Your task to perform on an android device: create a new album in the google photos Image 0: 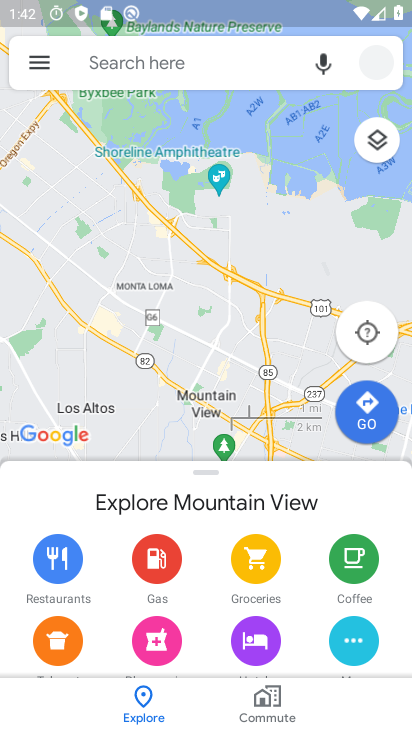
Step 0: press home button
Your task to perform on an android device: create a new album in the google photos Image 1: 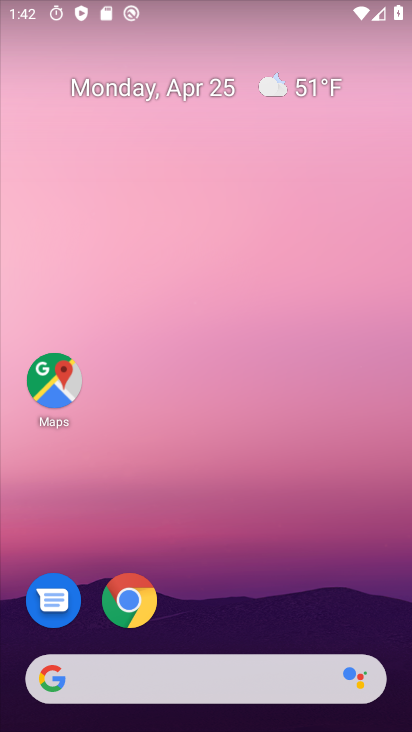
Step 1: drag from (156, 671) to (222, 249)
Your task to perform on an android device: create a new album in the google photos Image 2: 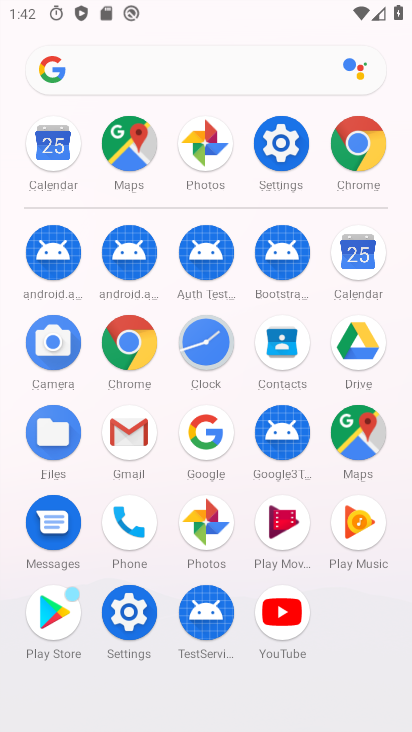
Step 2: click (209, 531)
Your task to perform on an android device: create a new album in the google photos Image 3: 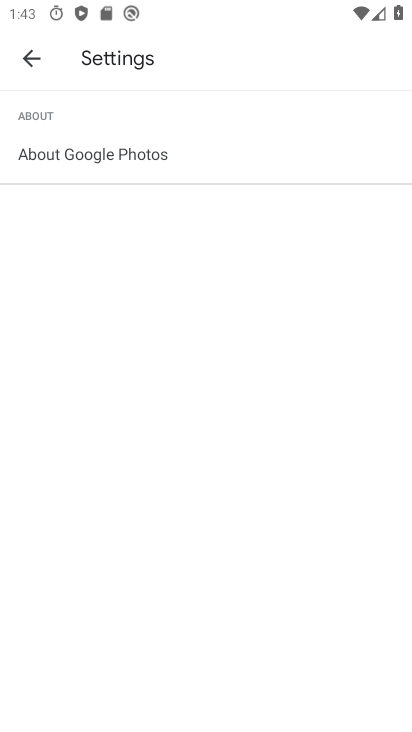
Step 3: click (34, 56)
Your task to perform on an android device: create a new album in the google photos Image 4: 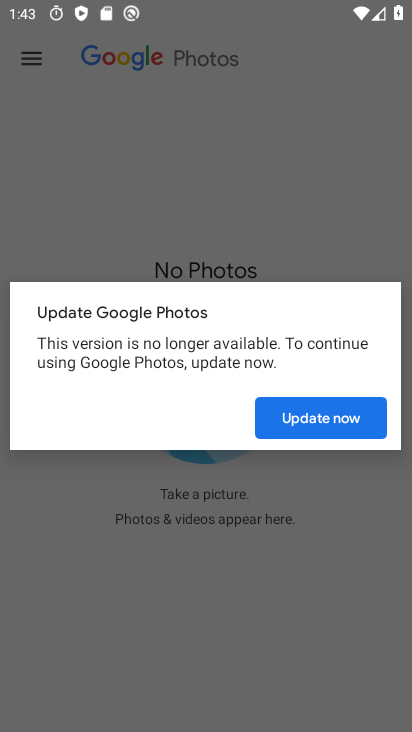
Step 4: click (345, 418)
Your task to perform on an android device: create a new album in the google photos Image 5: 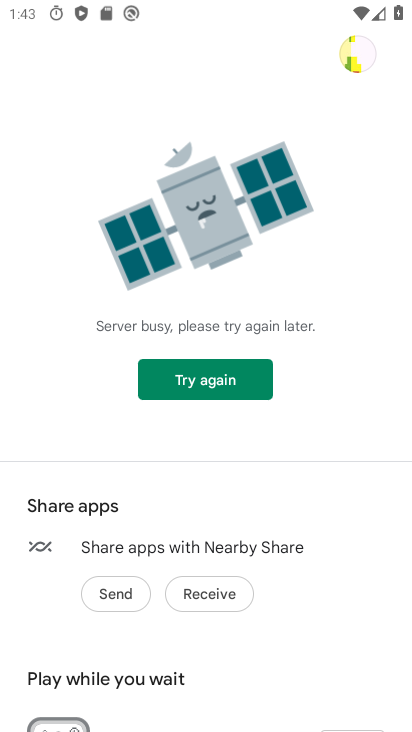
Step 5: task complete